Your task to perform on an android device: change the clock style Image 0: 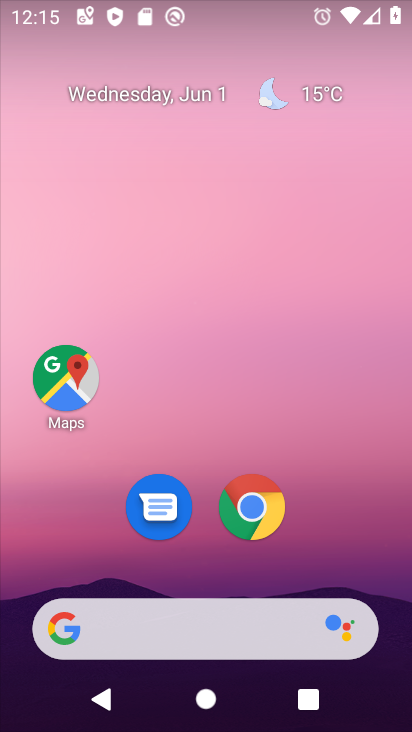
Step 0: drag from (307, 556) to (277, 83)
Your task to perform on an android device: change the clock style Image 1: 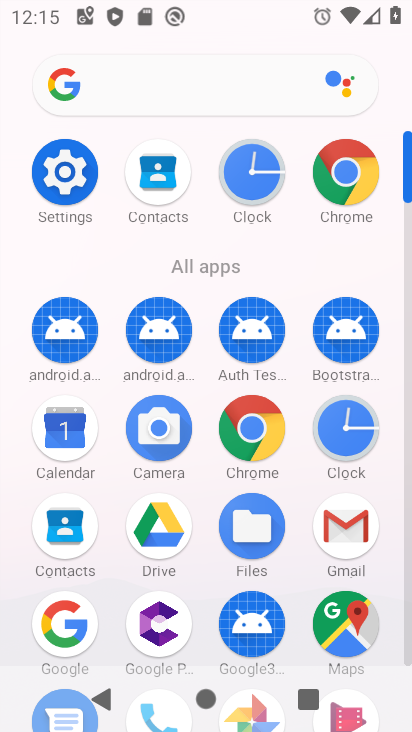
Step 1: click (251, 171)
Your task to perform on an android device: change the clock style Image 2: 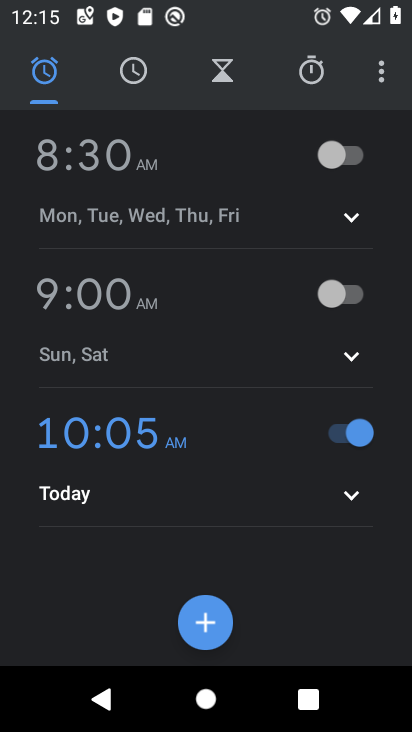
Step 2: click (383, 75)
Your task to perform on an android device: change the clock style Image 3: 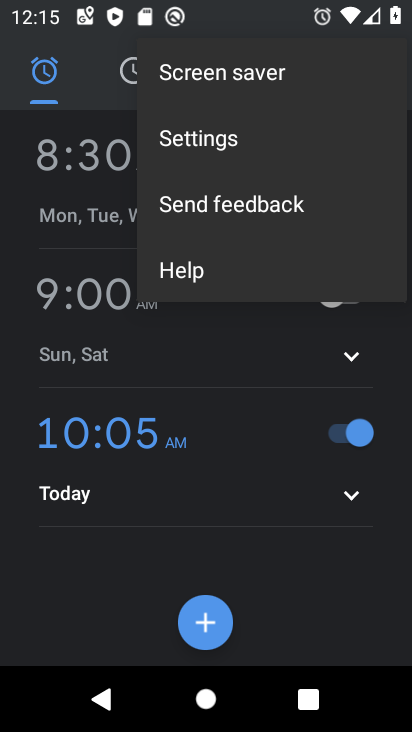
Step 3: click (228, 145)
Your task to perform on an android device: change the clock style Image 4: 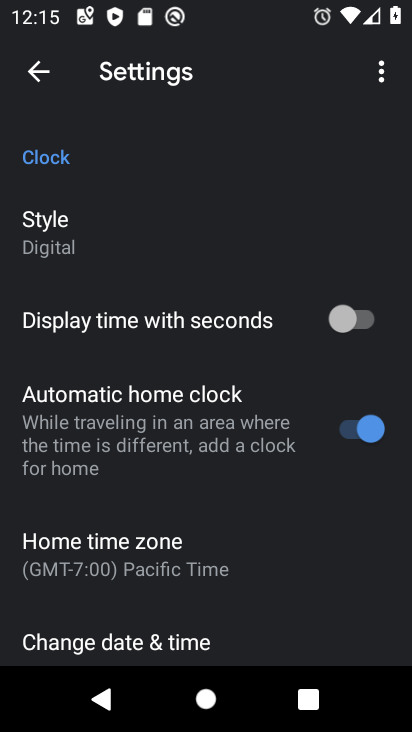
Step 4: click (67, 241)
Your task to perform on an android device: change the clock style Image 5: 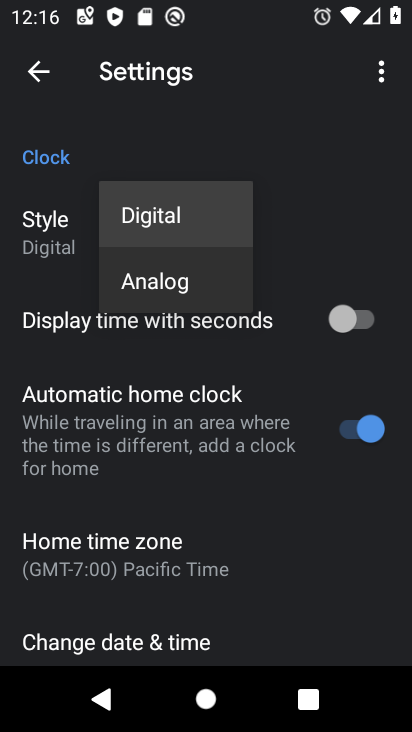
Step 5: click (141, 277)
Your task to perform on an android device: change the clock style Image 6: 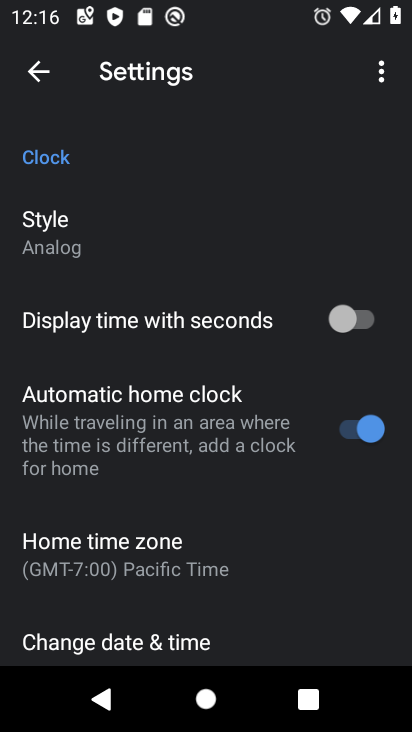
Step 6: task complete